Your task to perform on an android device: Go to Reddit.com Image 0: 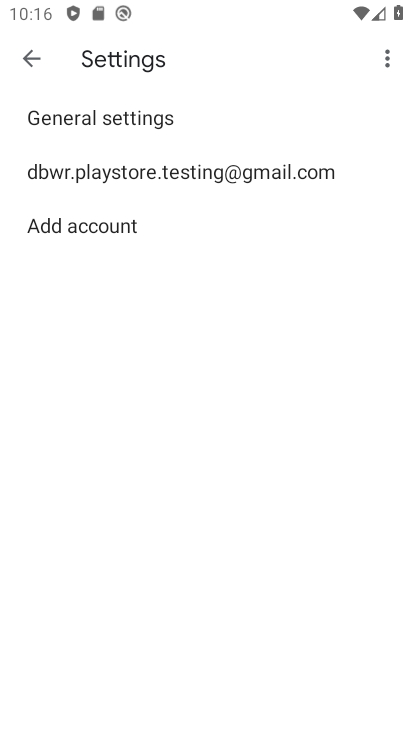
Step 0: press home button
Your task to perform on an android device: Go to Reddit.com Image 1: 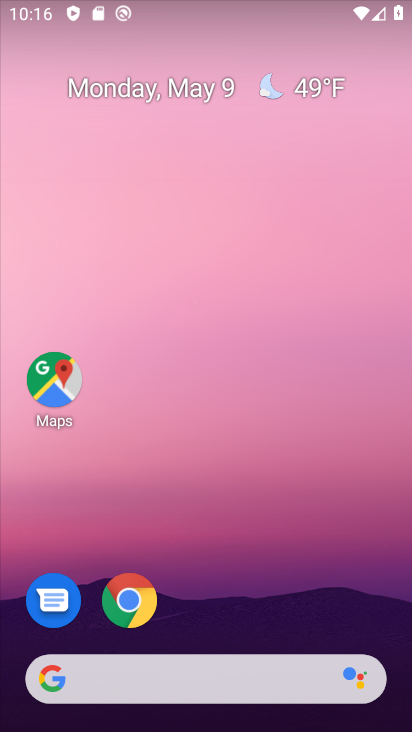
Step 1: drag from (293, 589) to (321, 210)
Your task to perform on an android device: Go to Reddit.com Image 2: 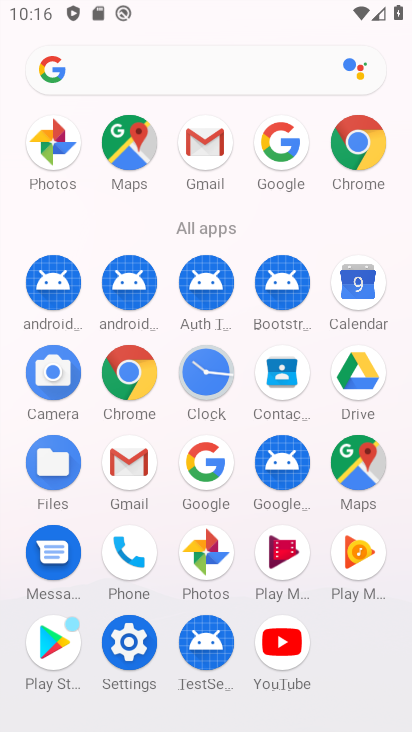
Step 2: click (127, 366)
Your task to perform on an android device: Go to Reddit.com Image 3: 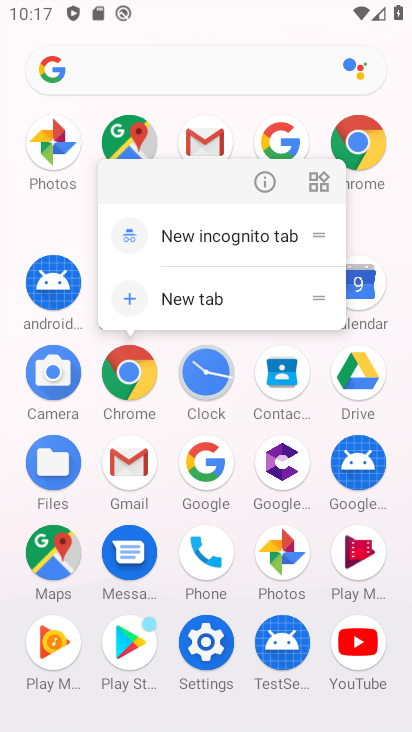
Step 3: click (134, 386)
Your task to perform on an android device: Go to Reddit.com Image 4: 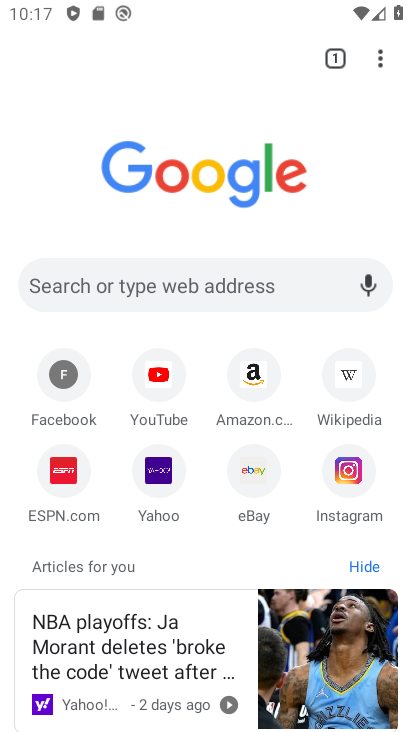
Step 4: click (227, 288)
Your task to perform on an android device: Go to Reddit.com Image 5: 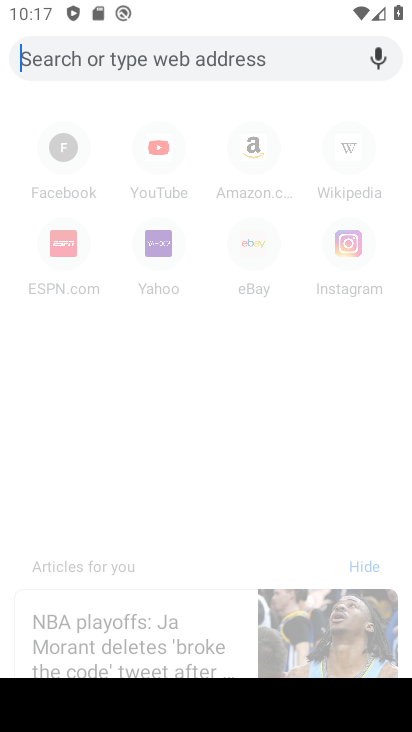
Step 5: type "reddit.com"
Your task to perform on an android device: Go to Reddit.com Image 6: 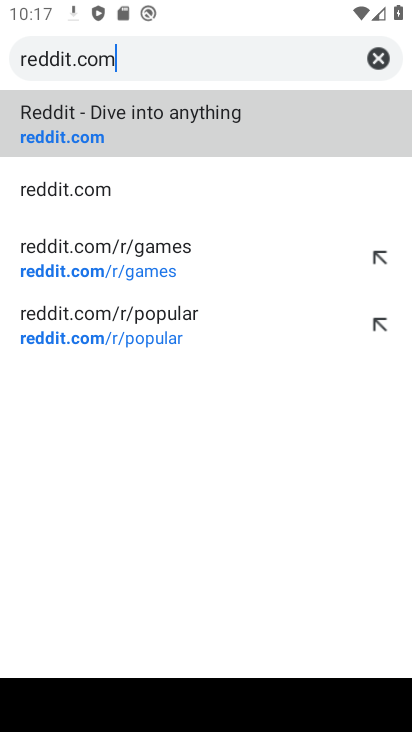
Step 6: click (59, 130)
Your task to perform on an android device: Go to Reddit.com Image 7: 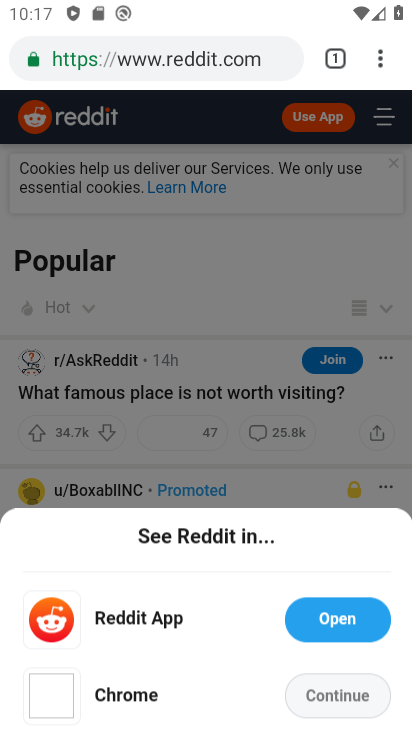
Step 7: task complete